Your task to perform on an android device: change text size in settings app Image 0: 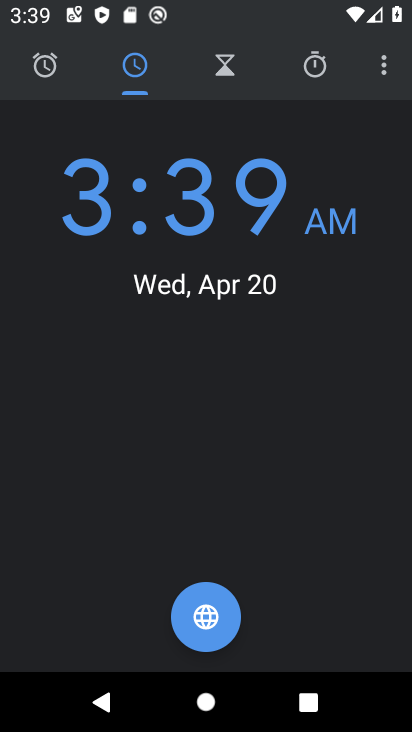
Step 0: press home button
Your task to perform on an android device: change text size in settings app Image 1: 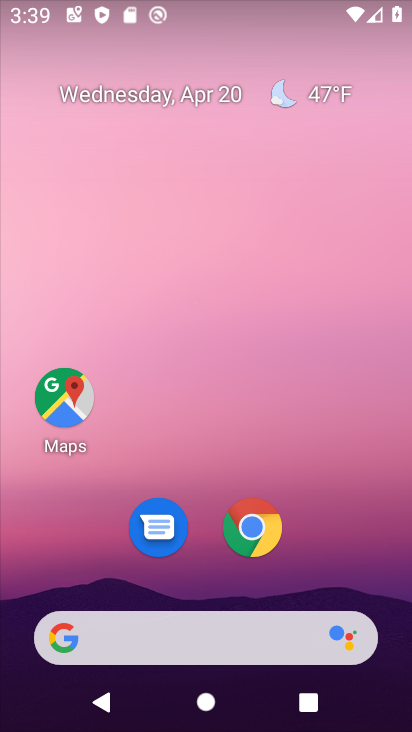
Step 1: drag from (338, 540) to (379, 191)
Your task to perform on an android device: change text size in settings app Image 2: 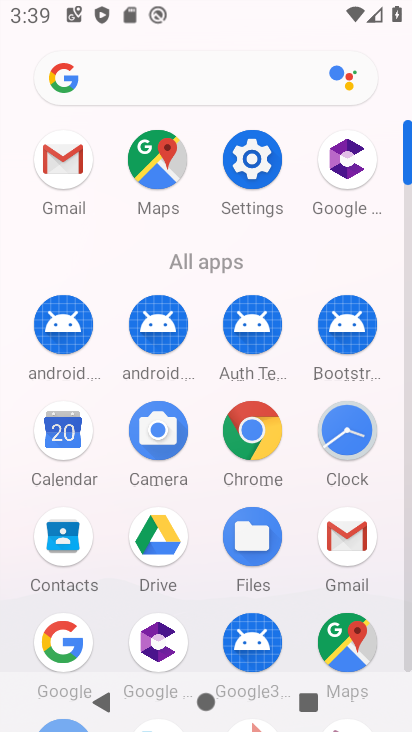
Step 2: click (266, 172)
Your task to perform on an android device: change text size in settings app Image 3: 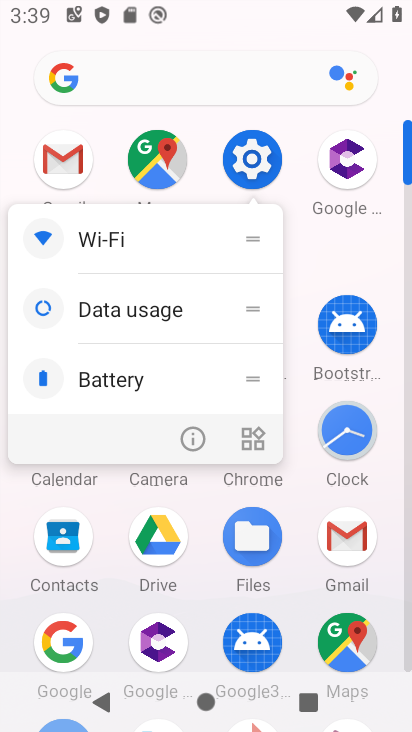
Step 3: click (249, 170)
Your task to perform on an android device: change text size in settings app Image 4: 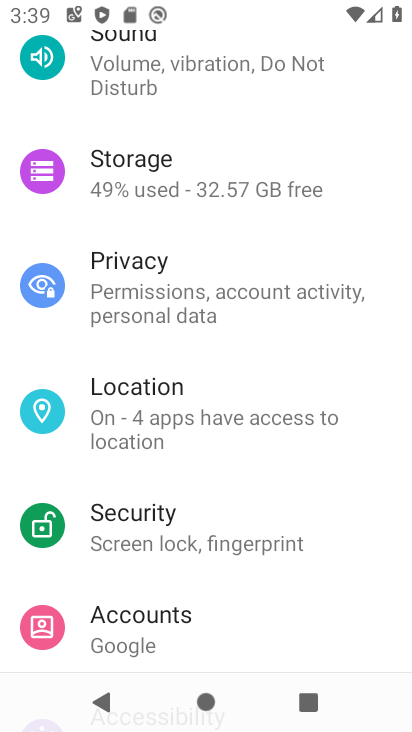
Step 4: drag from (220, 152) to (232, 604)
Your task to perform on an android device: change text size in settings app Image 5: 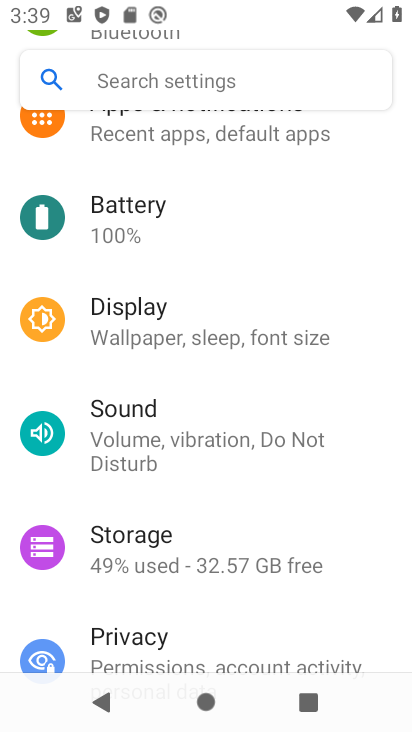
Step 5: click (195, 341)
Your task to perform on an android device: change text size in settings app Image 6: 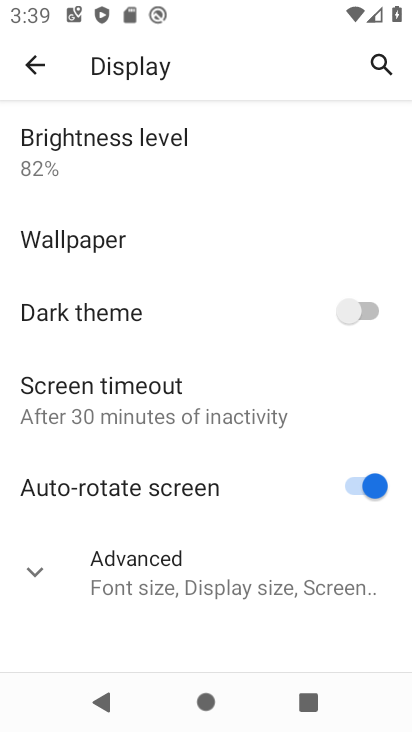
Step 6: click (39, 571)
Your task to perform on an android device: change text size in settings app Image 7: 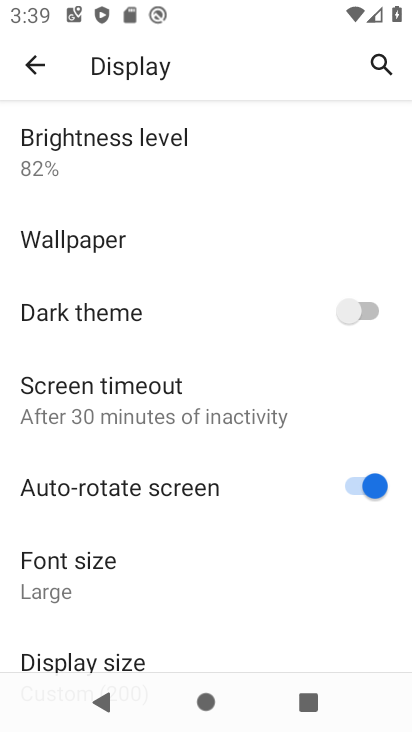
Step 7: click (66, 591)
Your task to perform on an android device: change text size in settings app Image 8: 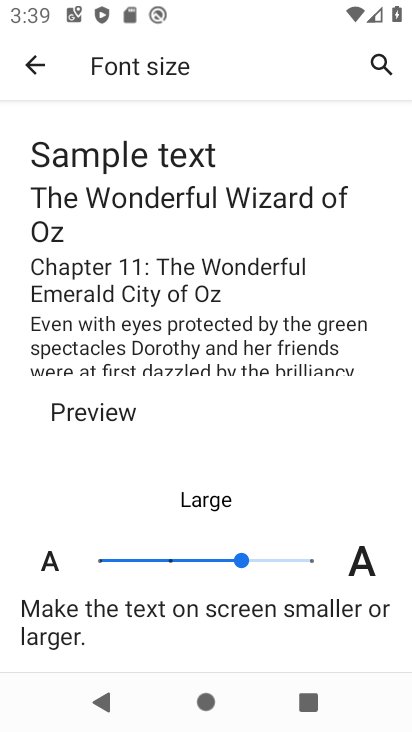
Step 8: click (171, 560)
Your task to perform on an android device: change text size in settings app Image 9: 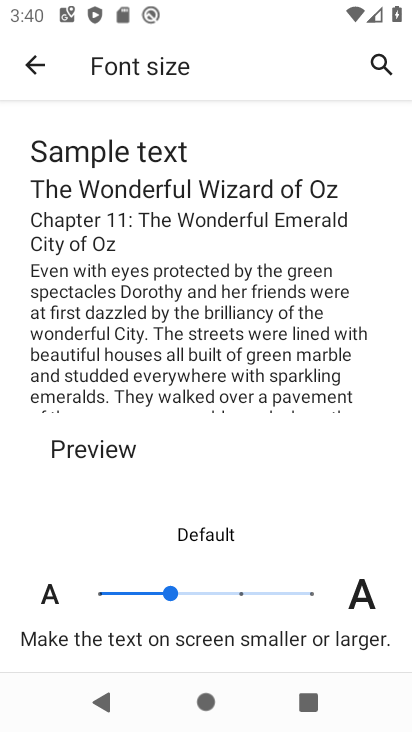
Step 9: task complete